Your task to perform on an android device: What's the news in Bolivia? Image 0: 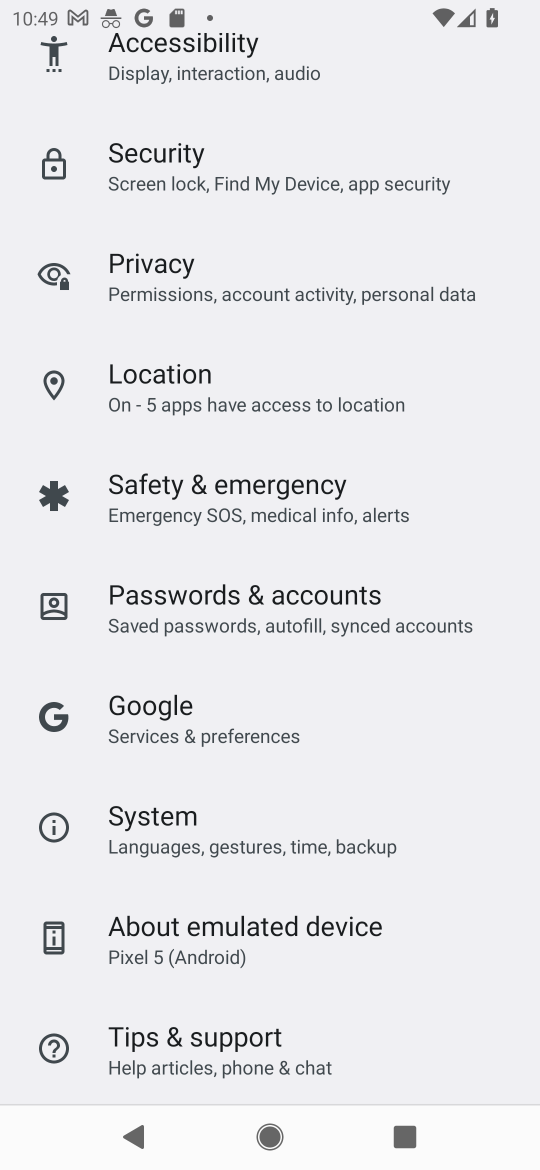
Step 0: press home button
Your task to perform on an android device: What's the news in Bolivia? Image 1: 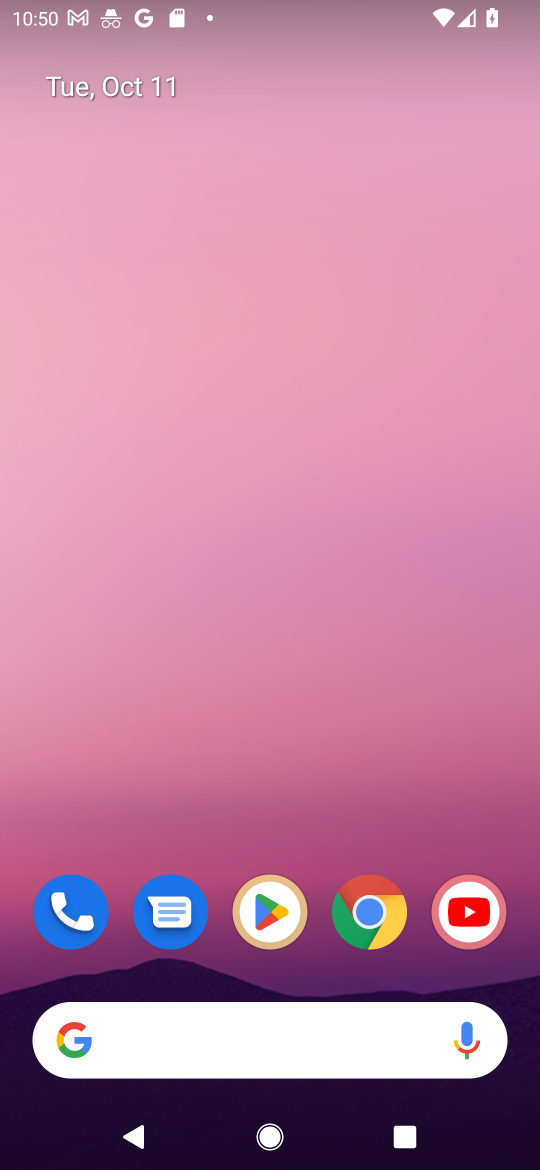
Step 1: click (367, 909)
Your task to perform on an android device: What's the news in Bolivia? Image 2: 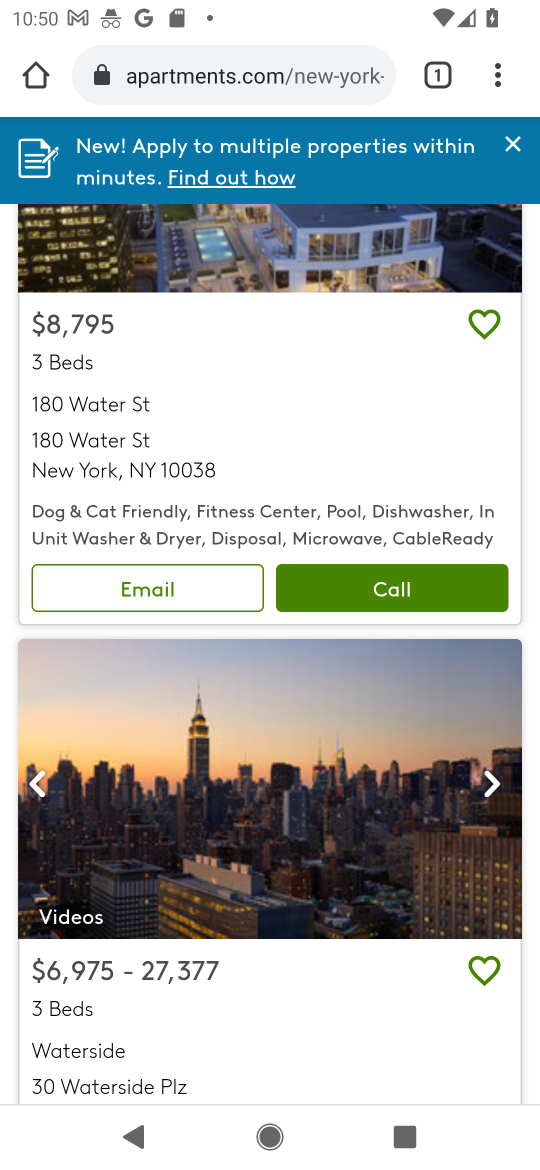
Step 2: click (290, 51)
Your task to perform on an android device: What's the news in Bolivia? Image 3: 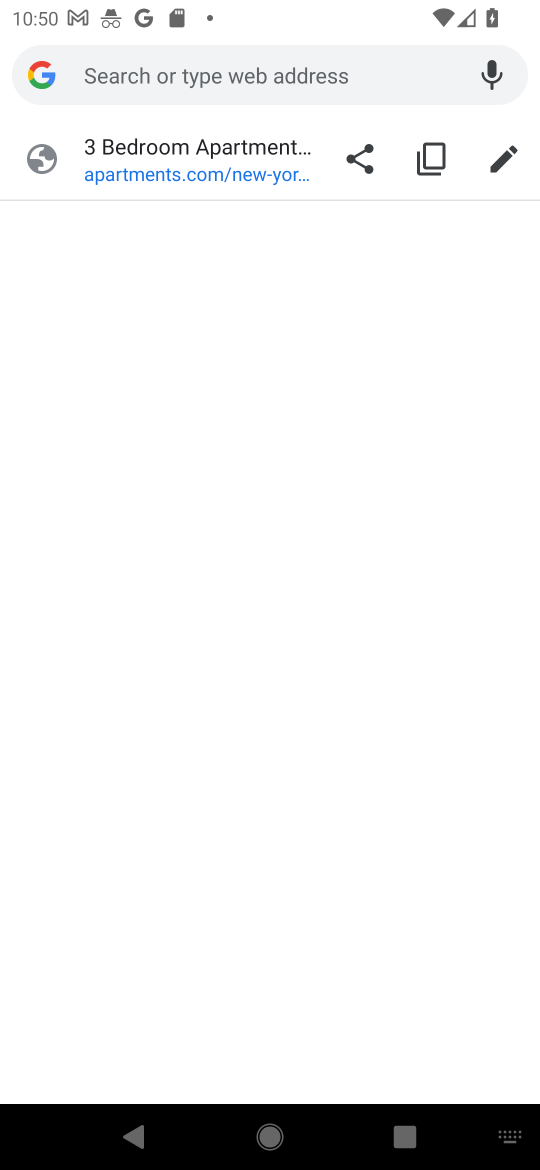
Step 3: type "news in bolivia/"
Your task to perform on an android device: What's the news in Bolivia? Image 4: 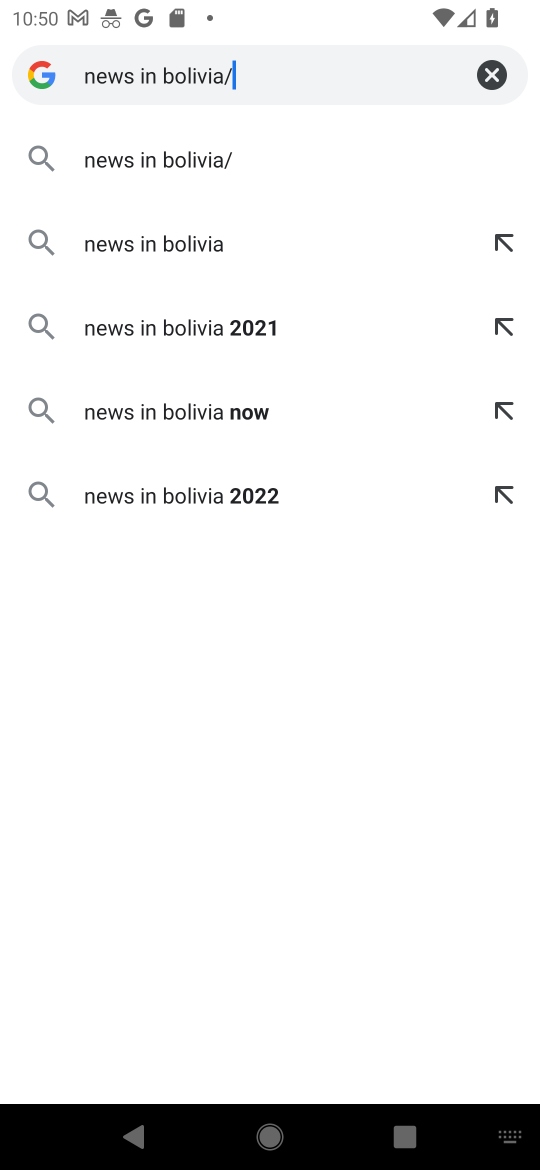
Step 4: click (177, 234)
Your task to perform on an android device: What's the news in Bolivia? Image 5: 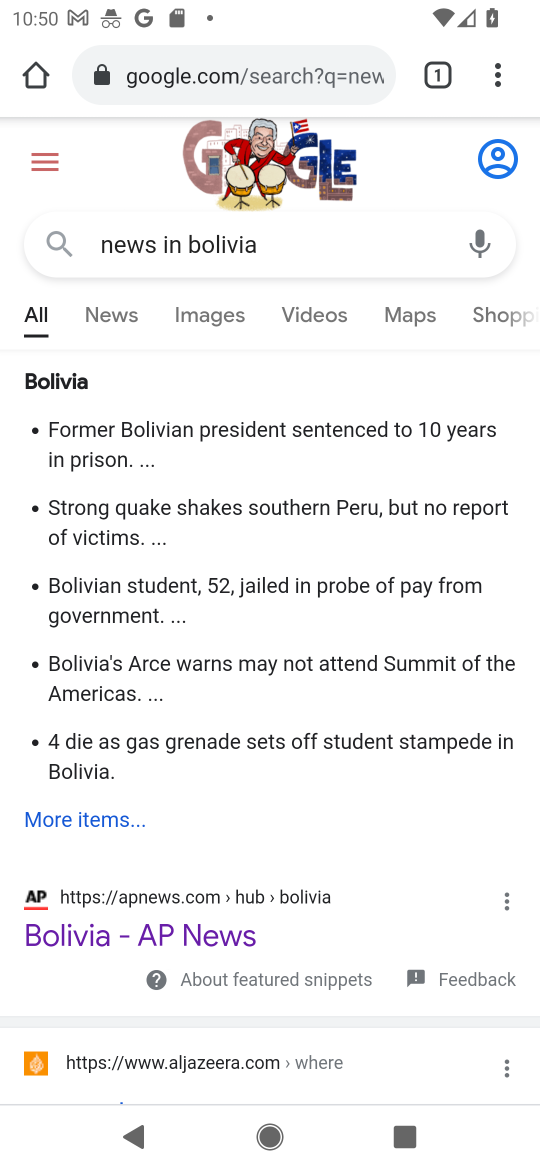
Step 5: click (69, 939)
Your task to perform on an android device: What's the news in Bolivia? Image 6: 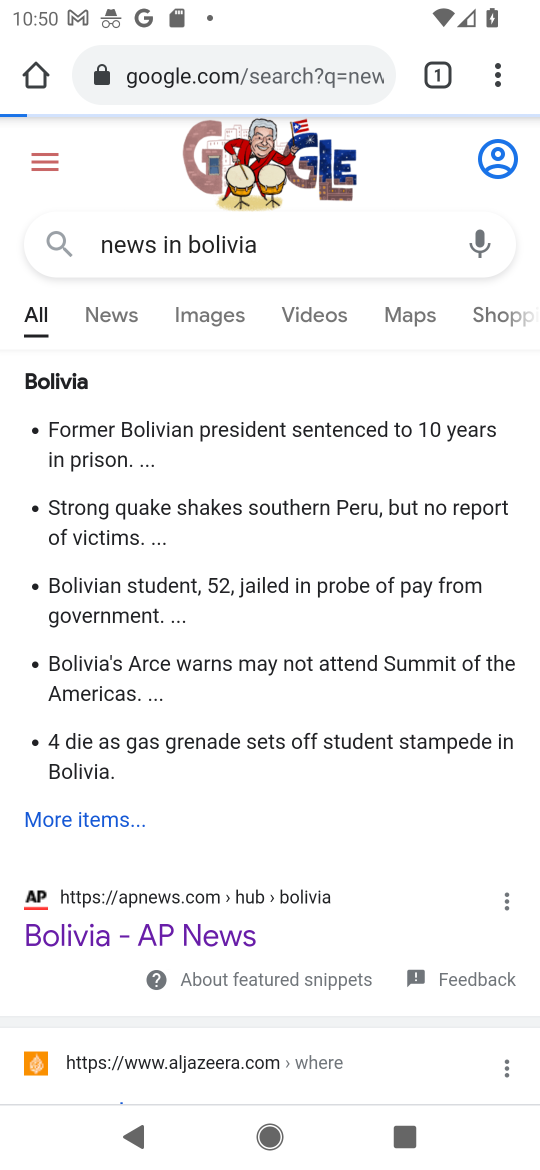
Step 6: drag from (368, 951) to (319, 249)
Your task to perform on an android device: What's the news in Bolivia? Image 7: 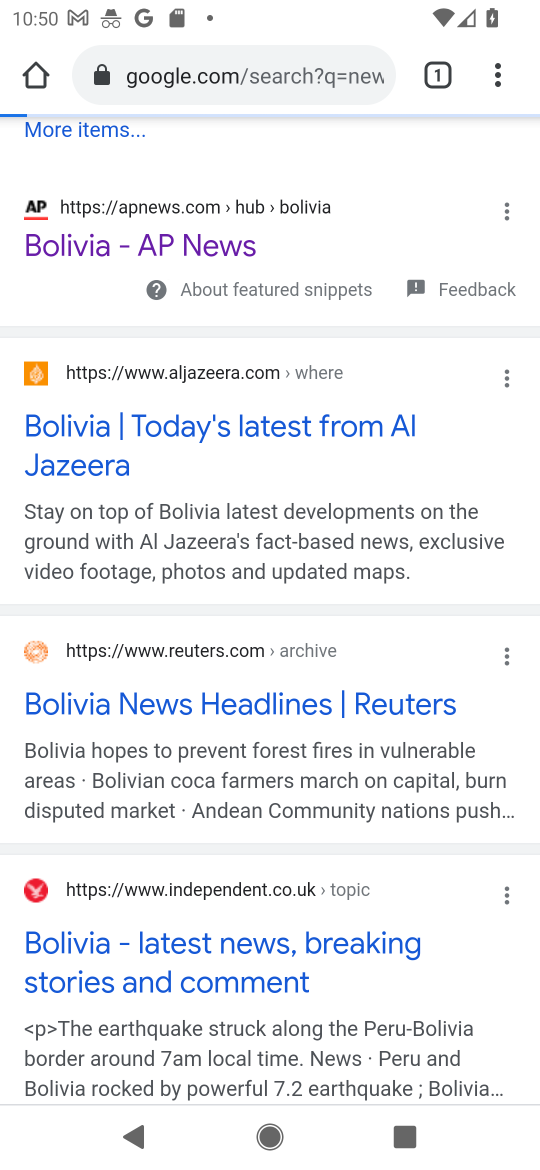
Step 7: click (79, 429)
Your task to perform on an android device: What's the news in Bolivia? Image 8: 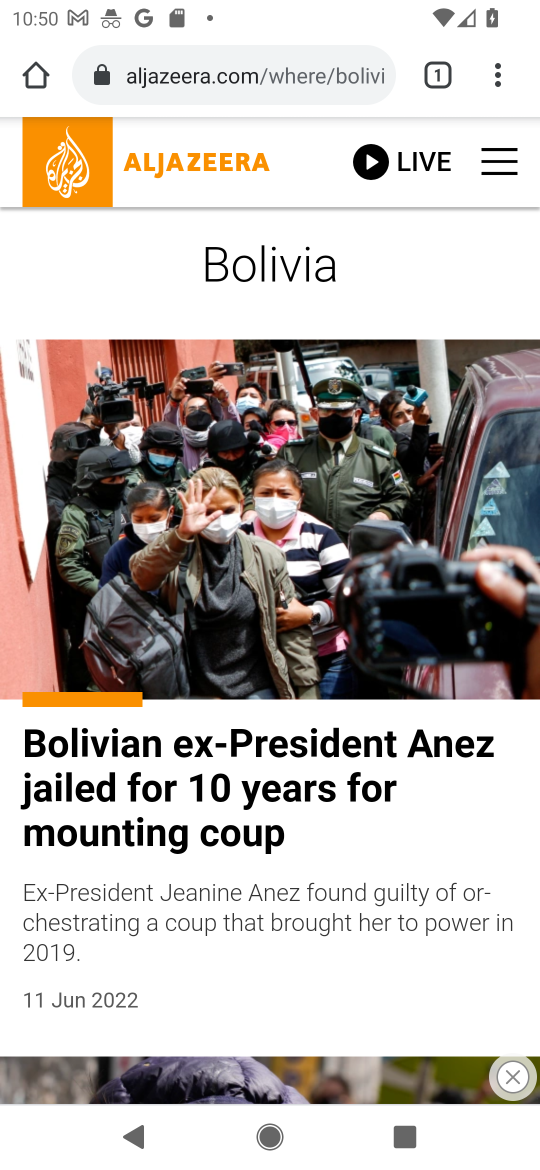
Step 8: click (125, 755)
Your task to perform on an android device: What's the news in Bolivia? Image 9: 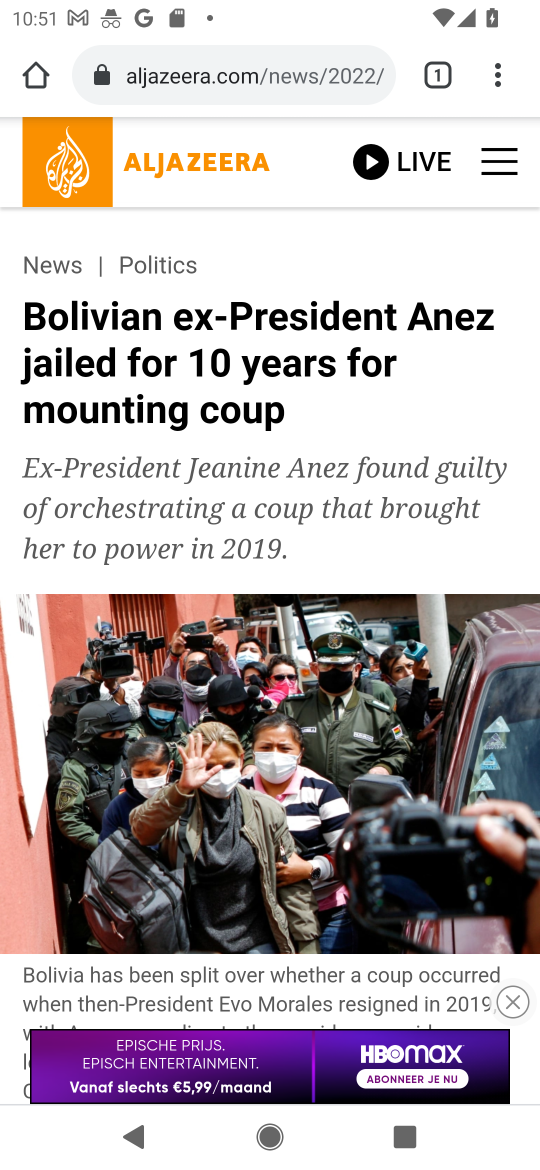
Step 9: task complete